Your task to perform on an android device: change the clock display to analog Image 0: 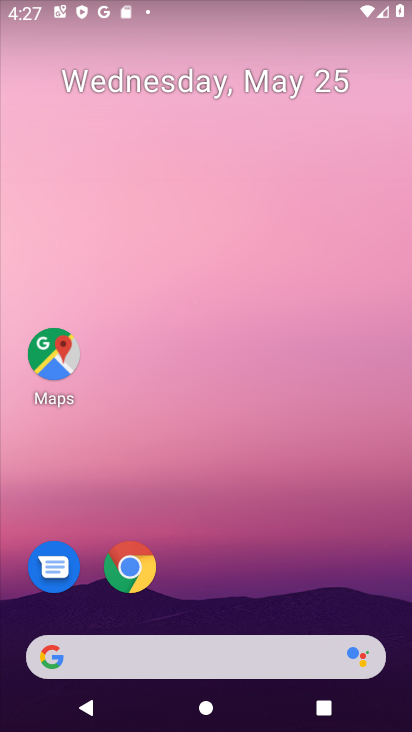
Step 0: drag from (217, 416) to (218, 4)
Your task to perform on an android device: change the clock display to analog Image 1: 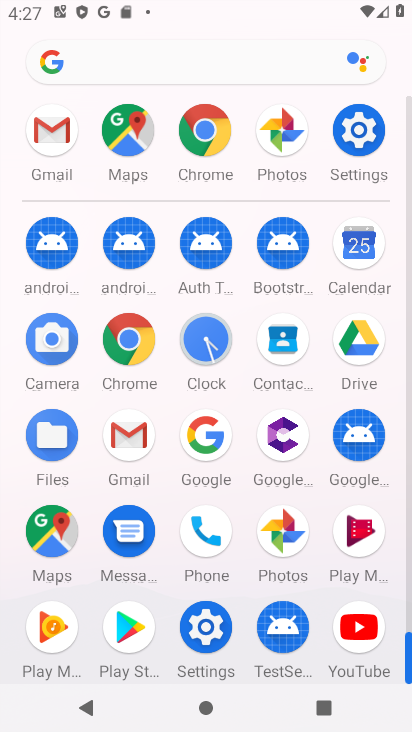
Step 1: drag from (7, 516) to (44, 245)
Your task to perform on an android device: change the clock display to analog Image 2: 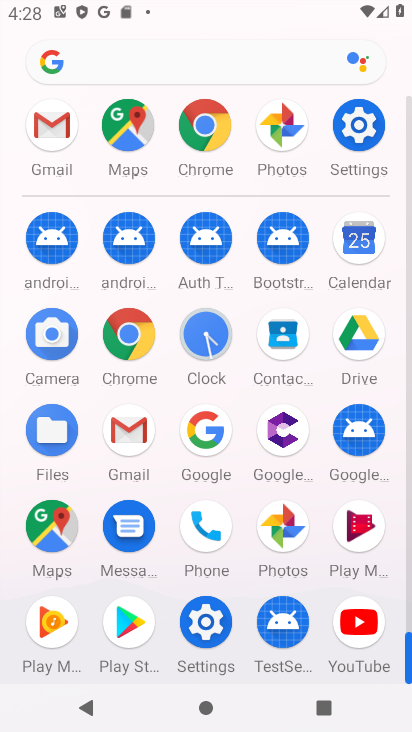
Step 2: drag from (15, 566) to (15, 326)
Your task to perform on an android device: change the clock display to analog Image 3: 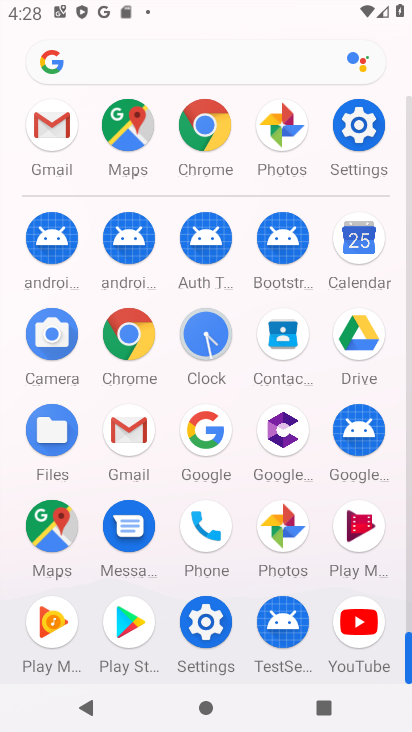
Step 3: drag from (2, 297) to (7, 523)
Your task to perform on an android device: change the clock display to analog Image 4: 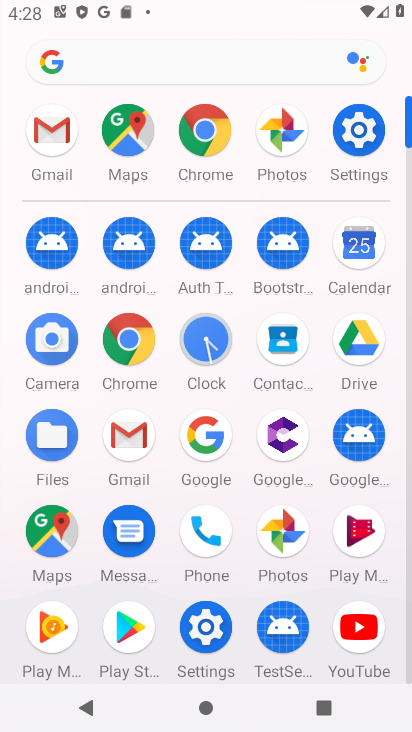
Step 4: drag from (10, 235) to (21, 517)
Your task to perform on an android device: change the clock display to analog Image 5: 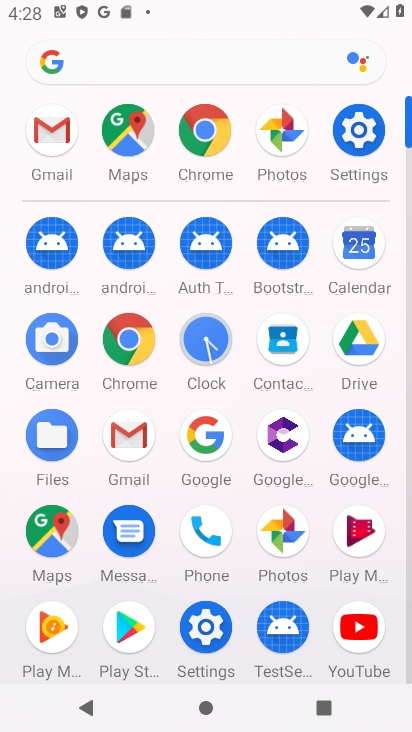
Step 5: drag from (18, 261) to (15, 543)
Your task to perform on an android device: change the clock display to analog Image 6: 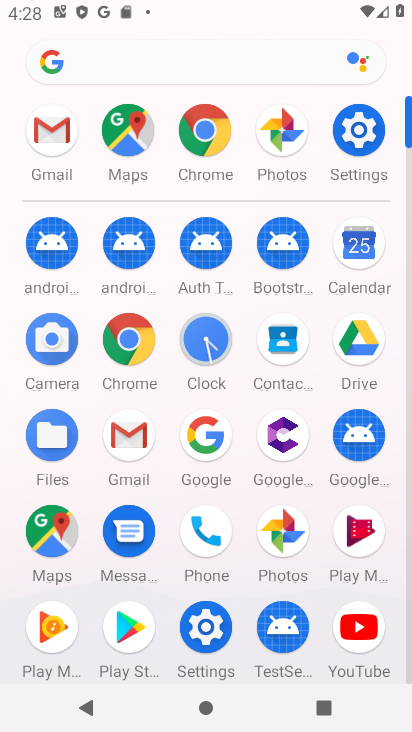
Step 6: drag from (18, 279) to (9, 497)
Your task to perform on an android device: change the clock display to analog Image 7: 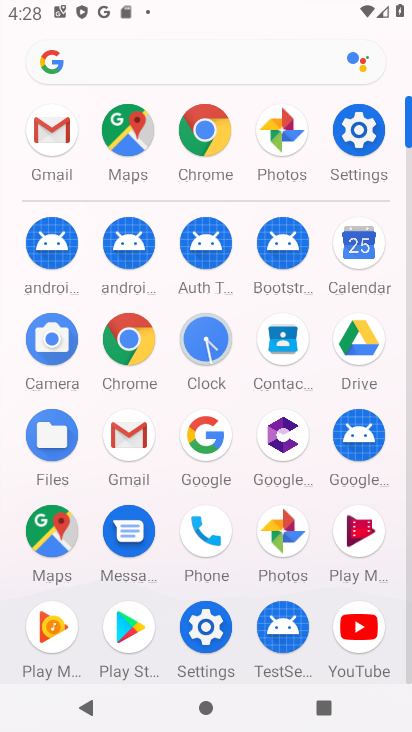
Step 7: click (203, 340)
Your task to perform on an android device: change the clock display to analog Image 8: 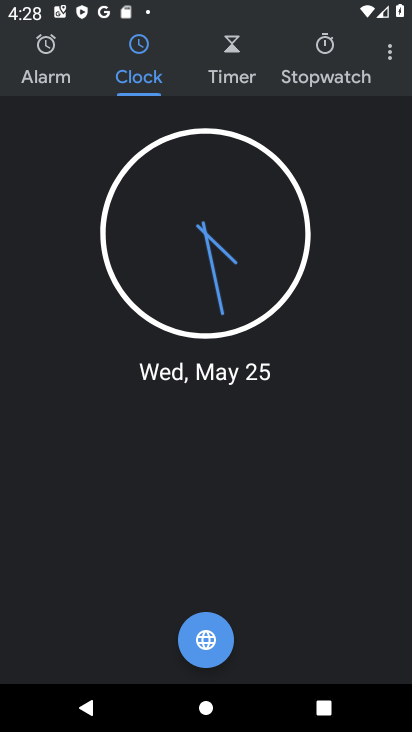
Step 8: drag from (394, 55) to (332, 105)
Your task to perform on an android device: change the clock display to analog Image 9: 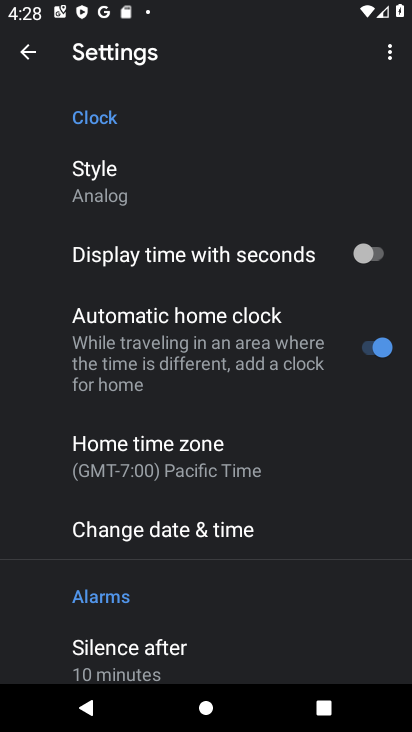
Step 9: click (142, 183)
Your task to perform on an android device: change the clock display to analog Image 10: 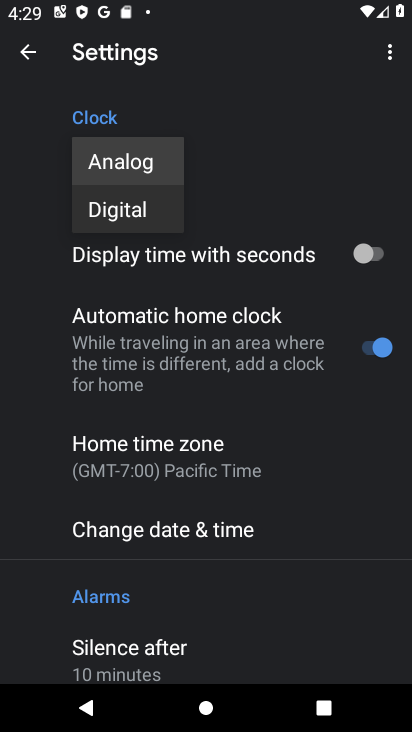
Step 10: click (138, 180)
Your task to perform on an android device: change the clock display to analog Image 11: 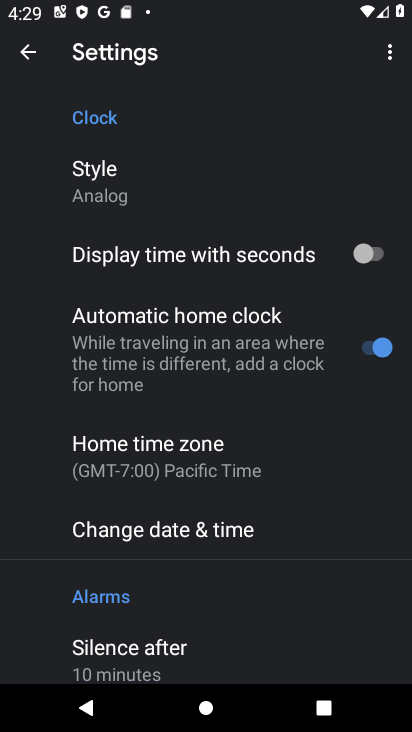
Step 11: task complete